Your task to perform on an android device: turn on sleep mode Image 0: 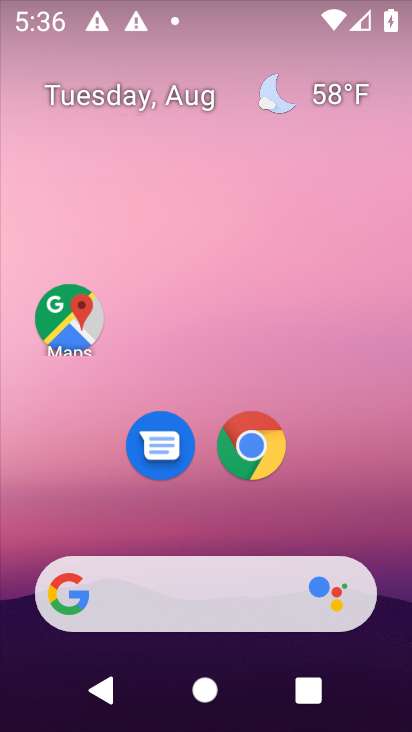
Step 0: drag from (209, 515) to (198, 17)
Your task to perform on an android device: turn on sleep mode Image 1: 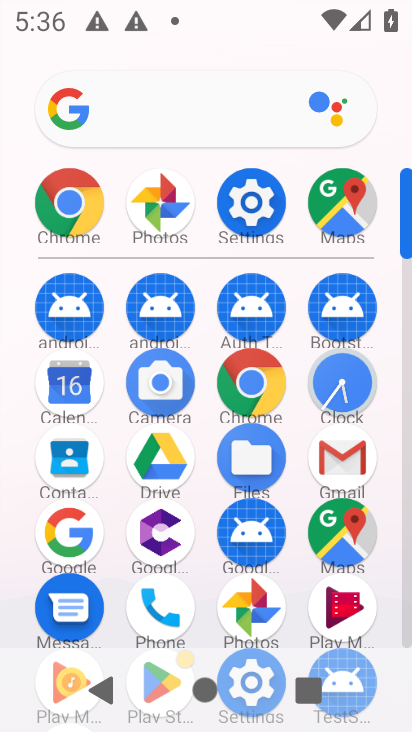
Step 1: click (244, 200)
Your task to perform on an android device: turn on sleep mode Image 2: 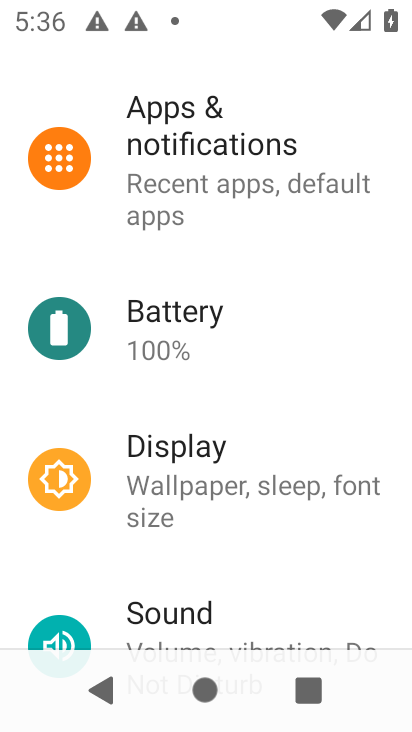
Step 2: task complete